Your task to perform on an android device: make emails show in primary in the gmail app Image 0: 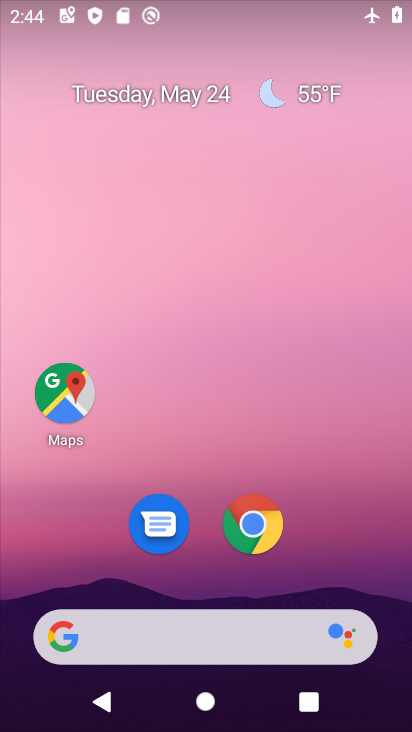
Step 0: drag from (340, 558) to (360, 55)
Your task to perform on an android device: make emails show in primary in the gmail app Image 1: 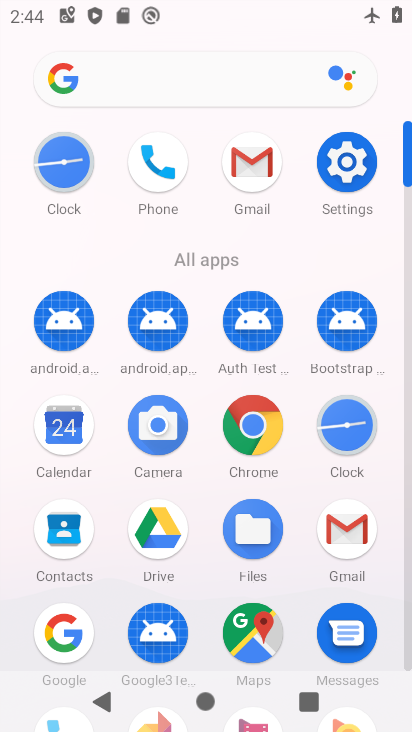
Step 1: click (259, 150)
Your task to perform on an android device: make emails show in primary in the gmail app Image 2: 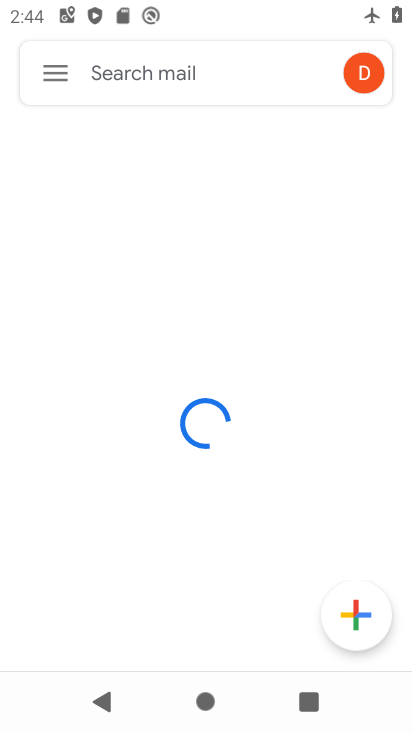
Step 2: click (56, 76)
Your task to perform on an android device: make emails show in primary in the gmail app Image 3: 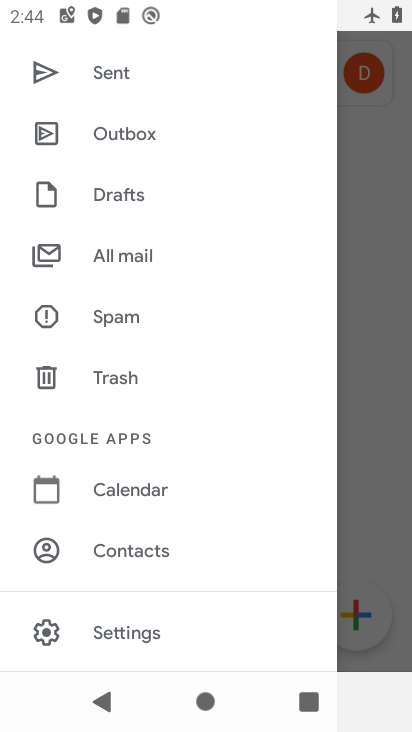
Step 3: click (129, 628)
Your task to perform on an android device: make emails show in primary in the gmail app Image 4: 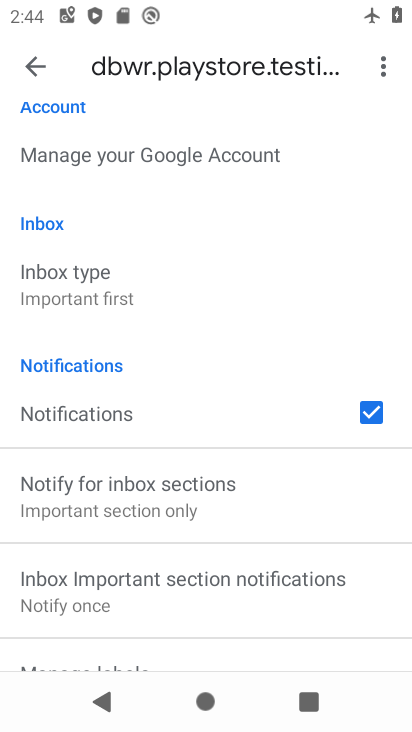
Step 4: click (113, 277)
Your task to perform on an android device: make emails show in primary in the gmail app Image 5: 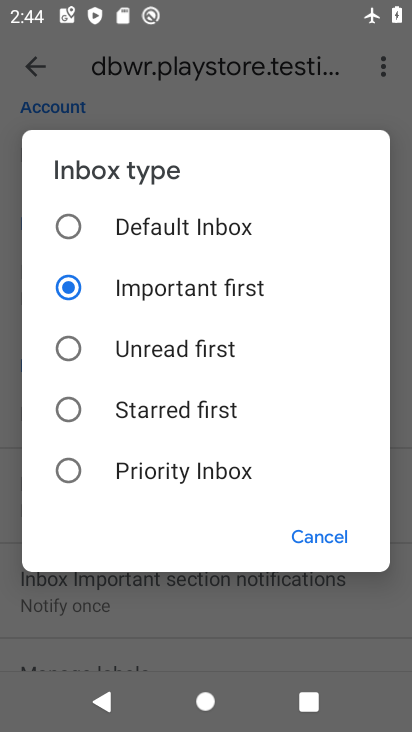
Step 5: click (56, 462)
Your task to perform on an android device: make emails show in primary in the gmail app Image 6: 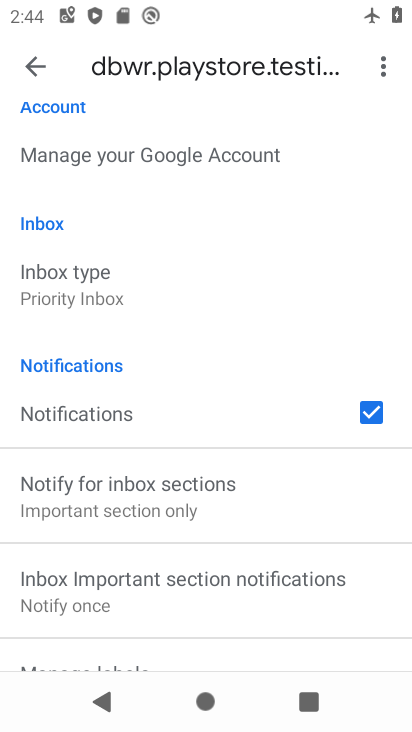
Step 6: task complete